Your task to perform on an android device: Show me the alarms in the clock app Image 0: 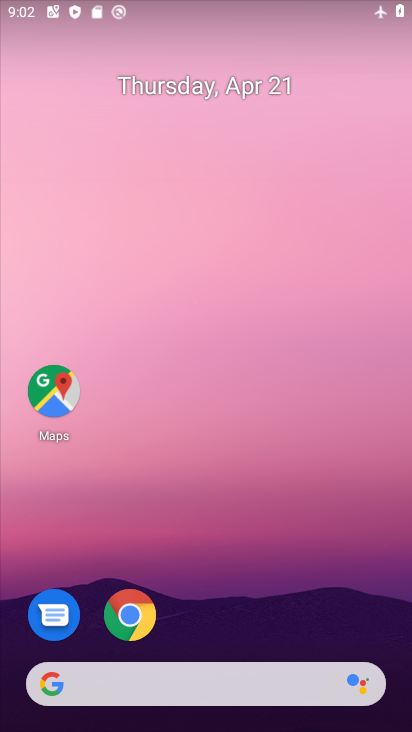
Step 0: drag from (208, 725) to (214, 165)
Your task to perform on an android device: Show me the alarms in the clock app Image 1: 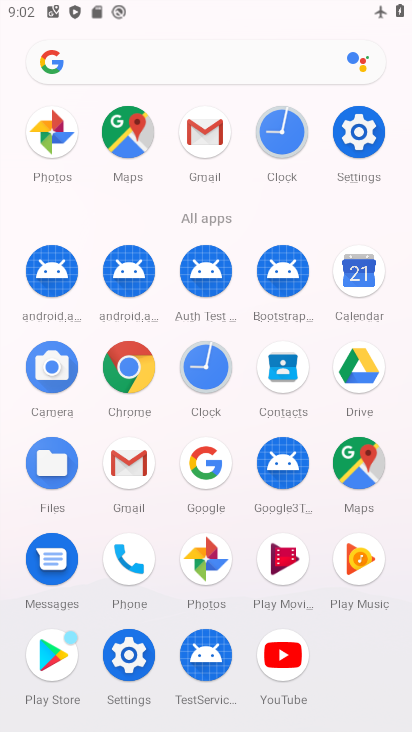
Step 1: click (199, 374)
Your task to perform on an android device: Show me the alarms in the clock app Image 2: 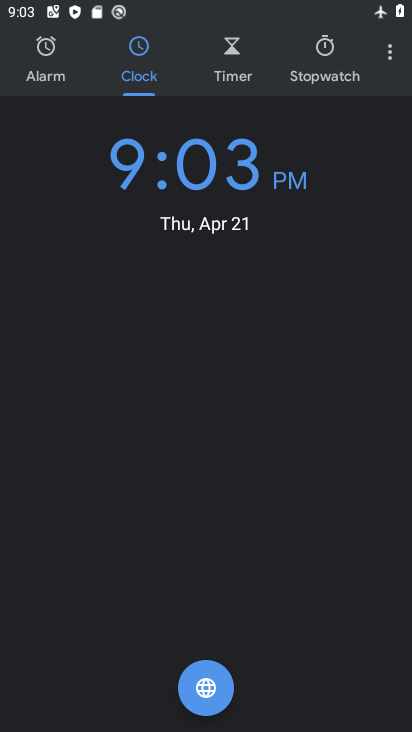
Step 2: click (43, 56)
Your task to perform on an android device: Show me the alarms in the clock app Image 3: 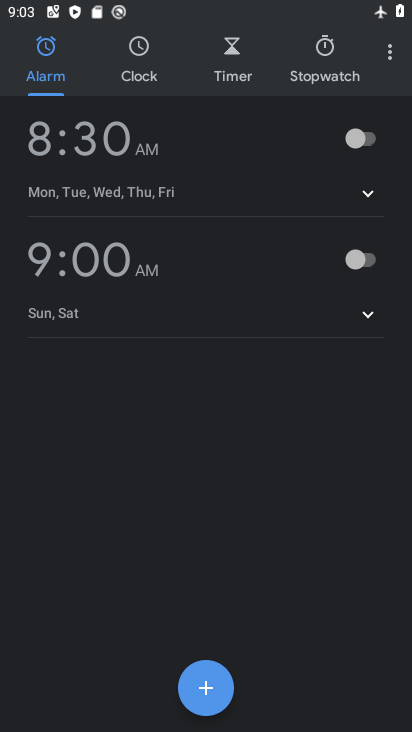
Step 3: task complete